Your task to perform on an android device: change the clock display to analog Image 0: 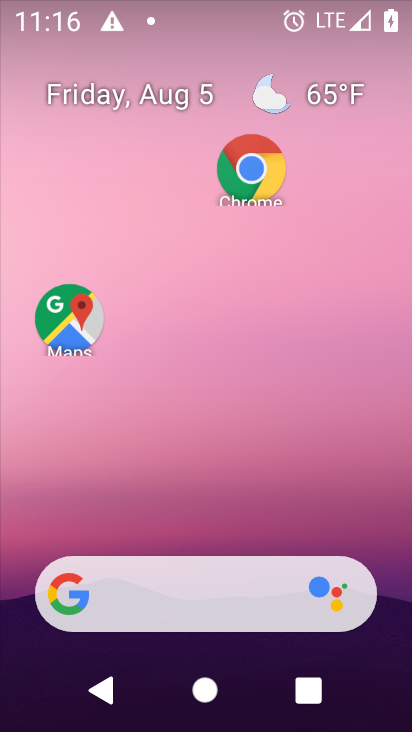
Step 0: drag from (209, 487) to (193, 158)
Your task to perform on an android device: change the clock display to analog Image 1: 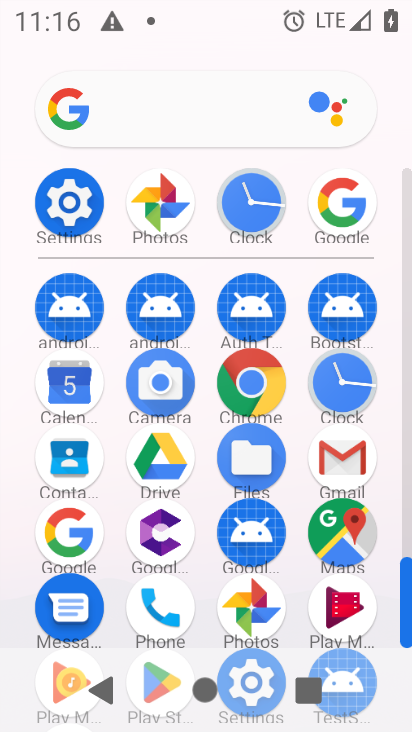
Step 1: click (218, 211)
Your task to perform on an android device: change the clock display to analog Image 2: 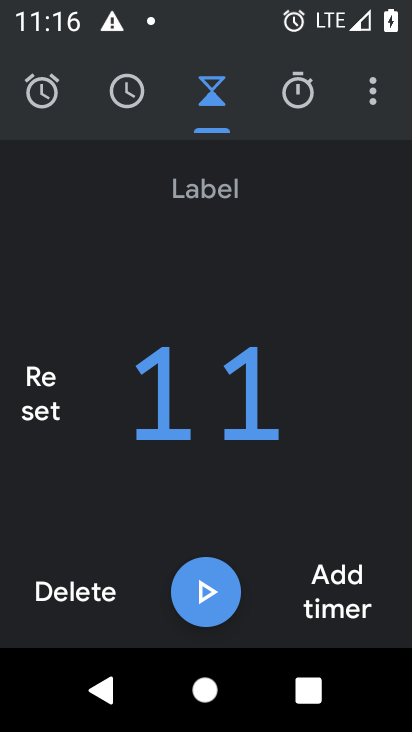
Step 2: click (371, 97)
Your task to perform on an android device: change the clock display to analog Image 3: 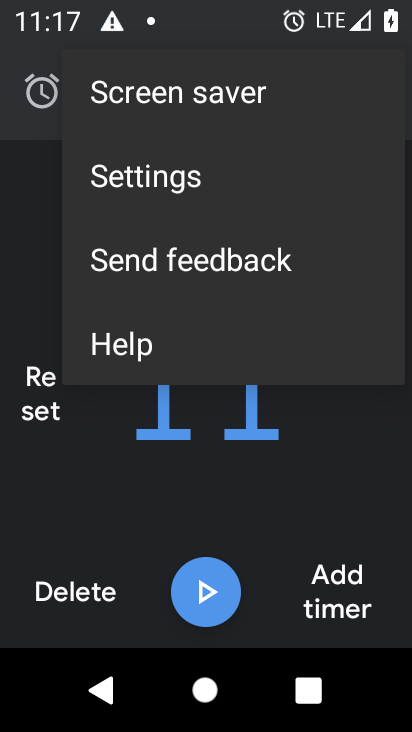
Step 3: click (232, 193)
Your task to perform on an android device: change the clock display to analog Image 4: 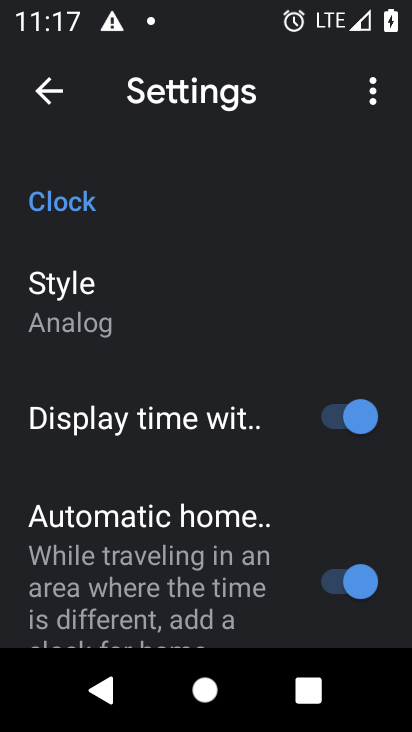
Step 4: task complete